Your task to perform on an android device: Do I have any events today? Image 0: 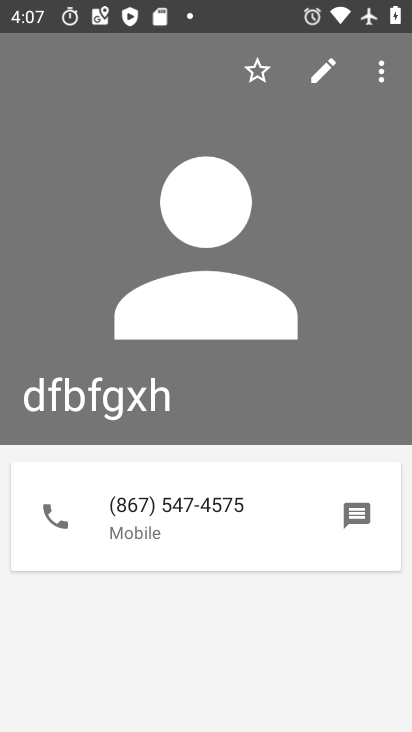
Step 0: press home button
Your task to perform on an android device: Do I have any events today? Image 1: 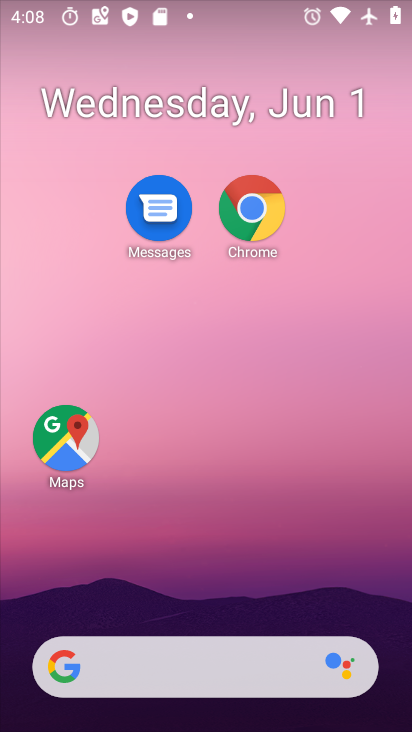
Step 1: drag from (213, 601) to (193, 305)
Your task to perform on an android device: Do I have any events today? Image 2: 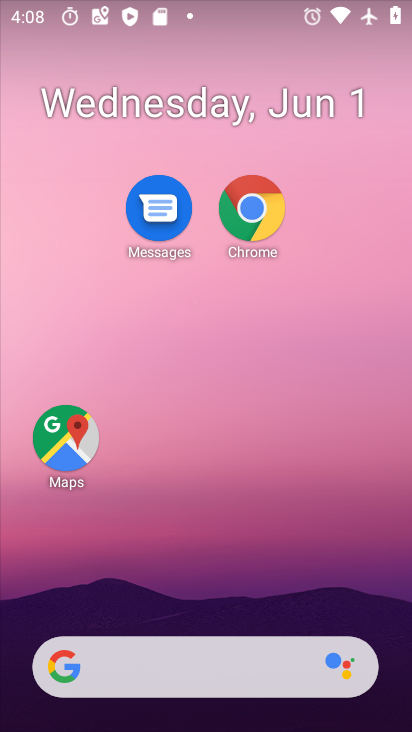
Step 2: drag from (202, 601) to (205, 205)
Your task to perform on an android device: Do I have any events today? Image 3: 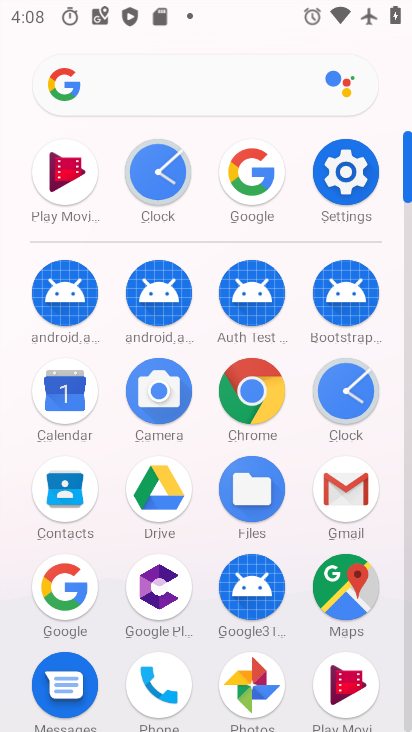
Step 3: click (75, 387)
Your task to perform on an android device: Do I have any events today? Image 4: 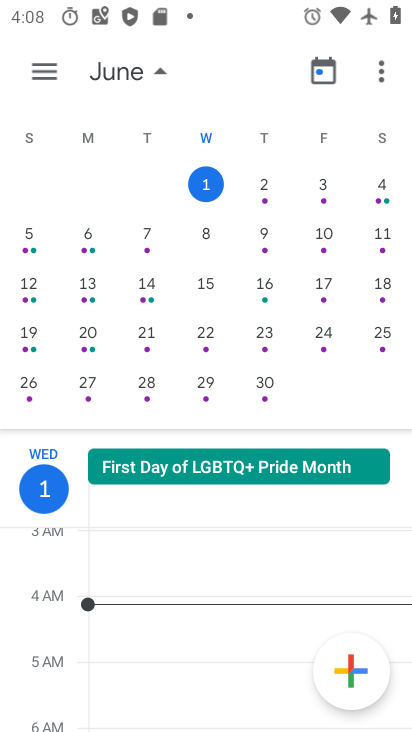
Step 4: click (203, 198)
Your task to perform on an android device: Do I have any events today? Image 5: 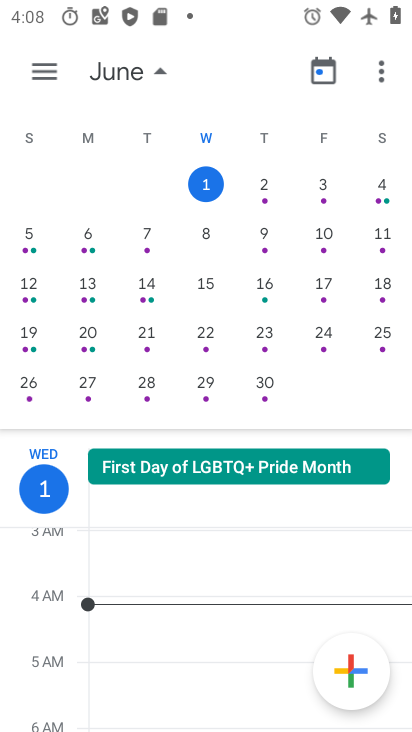
Step 5: task complete